Your task to perform on an android device: turn off smart reply in the gmail app Image 0: 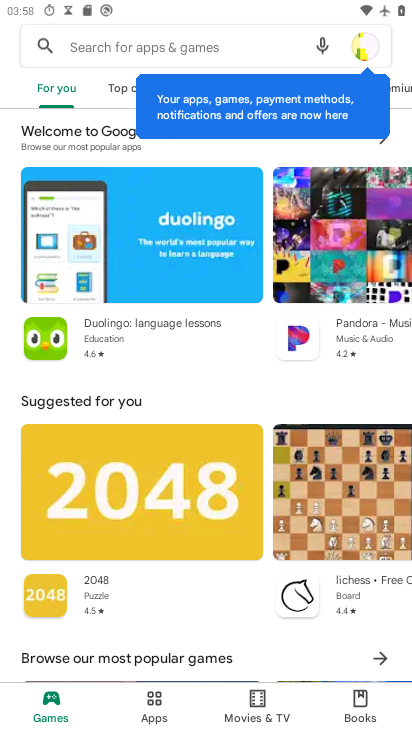
Step 0: press back button
Your task to perform on an android device: turn off smart reply in the gmail app Image 1: 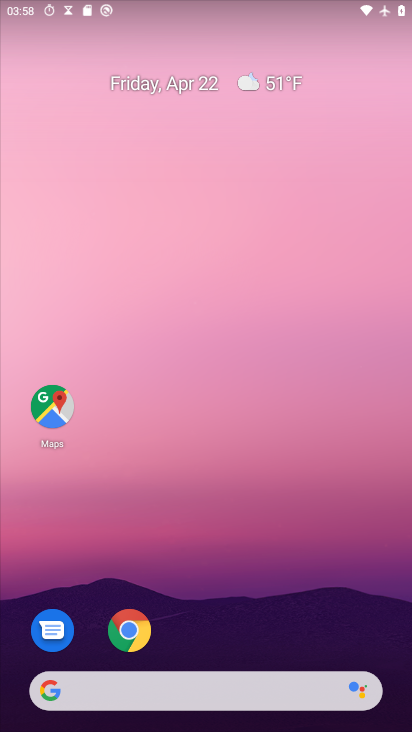
Step 1: drag from (295, 539) to (238, 18)
Your task to perform on an android device: turn off smart reply in the gmail app Image 2: 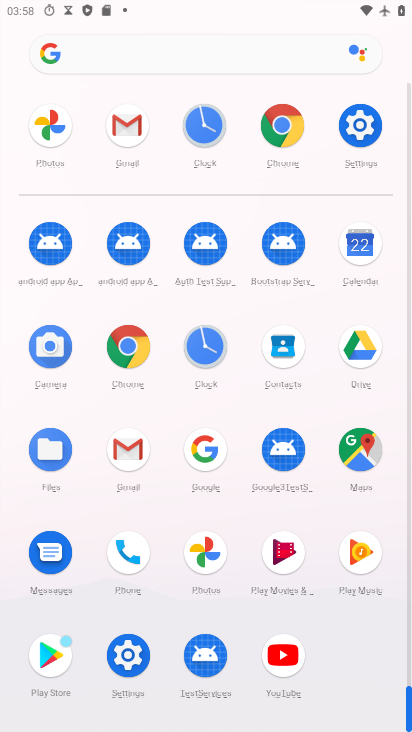
Step 2: drag from (7, 526) to (2, 286)
Your task to perform on an android device: turn off smart reply in the gmail app Image 3: 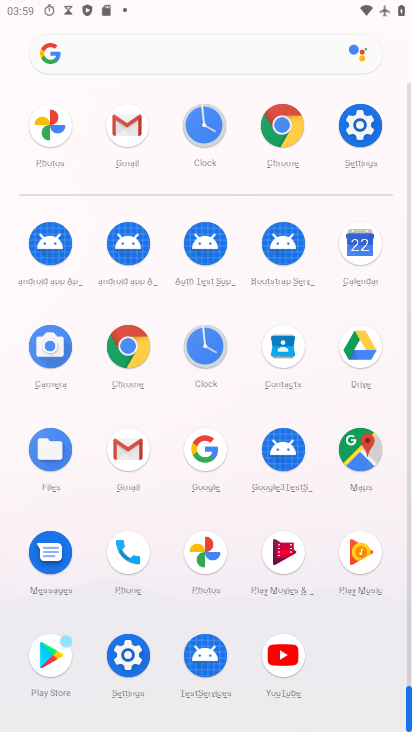
Step 3: click (130, 442)
Your task to perform on an android device: turn off smart reply in the gmail app Image 4: 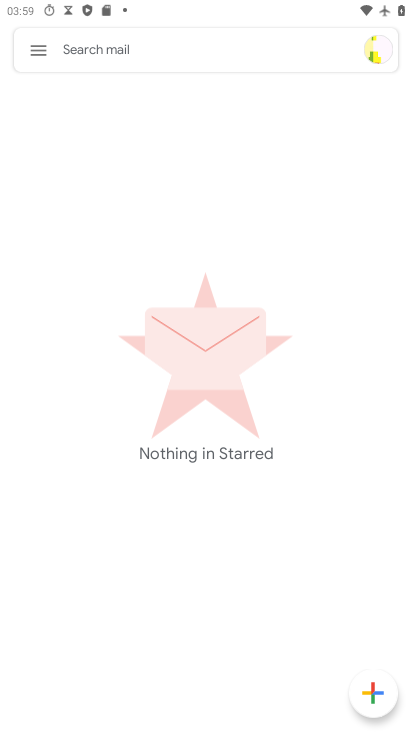
Step 4: click (28, 46)
Your task to perform on an android device: turn off smart reply in the gmail app Image 5: 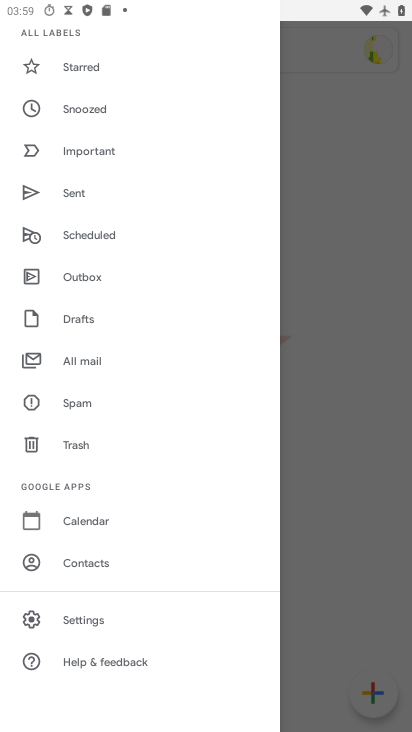
Step 5: click (82, 613)
Your task to perform on an android device: turn off smart reply in the gmail app Image 6: 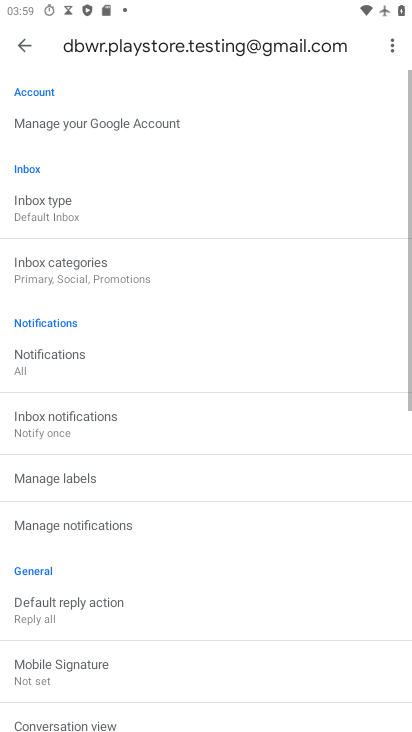
Step 6: drag from (197, 591) to (218, 119)
Your task to perform on an android device: turn off smart reply in the gmail app Image 7: 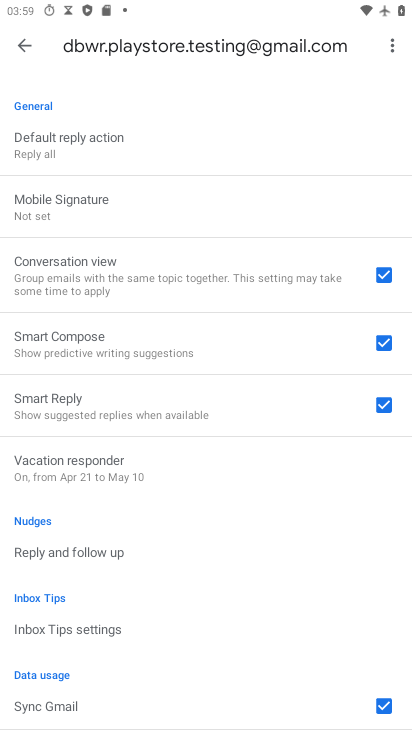
Step 7: drag from (193, 525) to (241, 143)
Your task to perform on an android device: turn off smart reply in the gmail app Image 8: 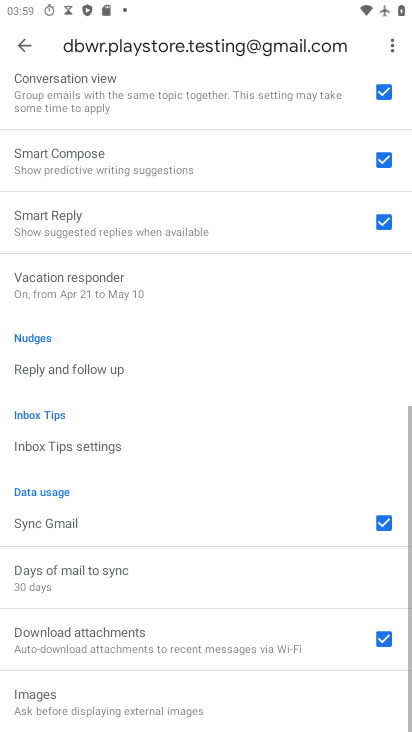
Step 8: drag from (143, 581) to (145, 285)
Your task to perform on an android device: turn off smart reply in the gmail app Image 9: 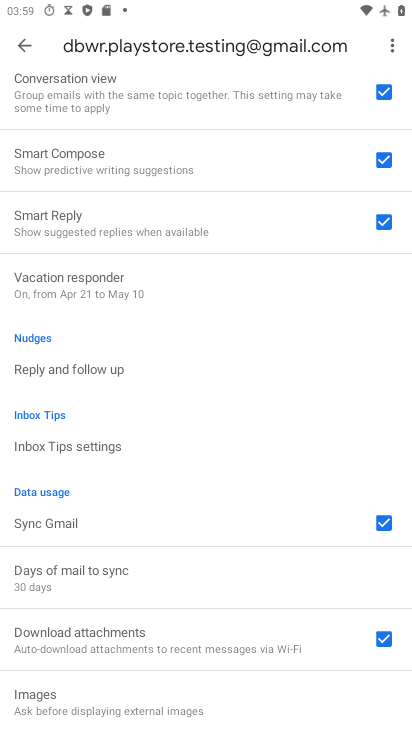
Step 9: click (388, 216)
Your task to perform on an android device: turn off smart reply in the gmail app Image 10: 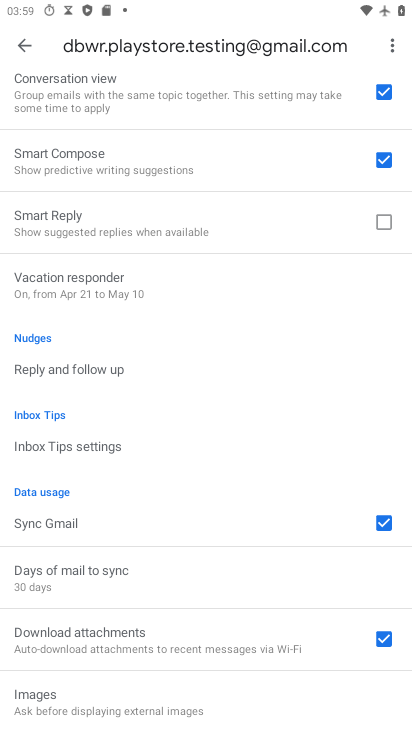
Step 10: task complete